Your task to perform on an android device: Go to calendar. Show me events next week Image 0: 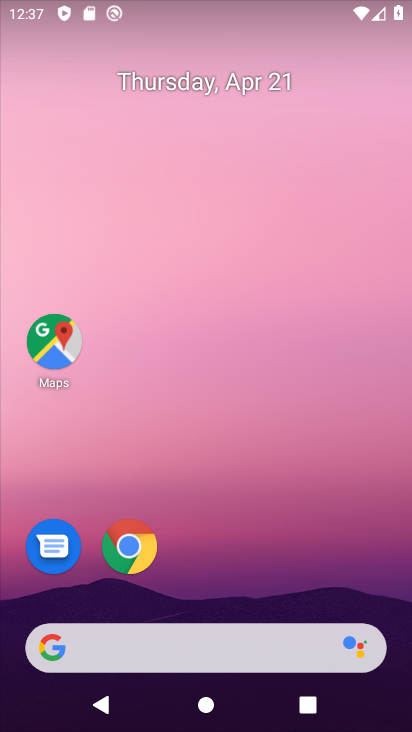
Step 0: drag from (272, 547) to (269, 143)
Your task to perform on an android device: Go to calendar. Show me events next week Image 1: 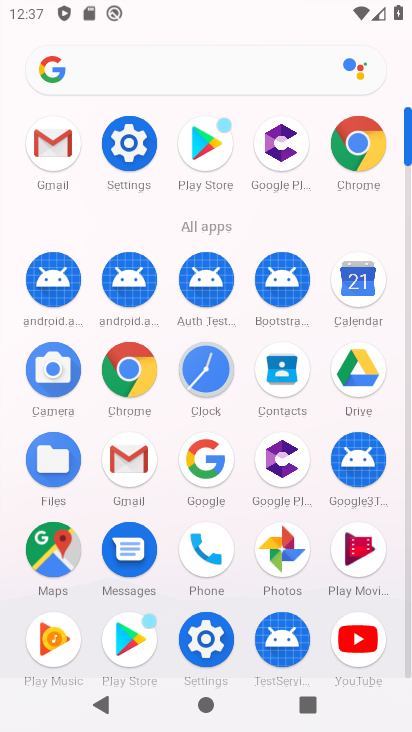
Step 1: click (354, 285)
Your task to perform on an android device: Go to calendar. Show me events next week Image 2: 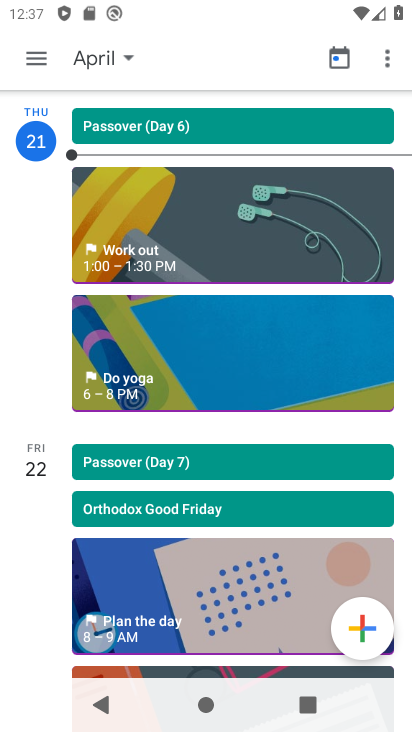
Step 2: task complete